Your task to perform on an android device: Open calendar and show me the first week of next month Image 0: 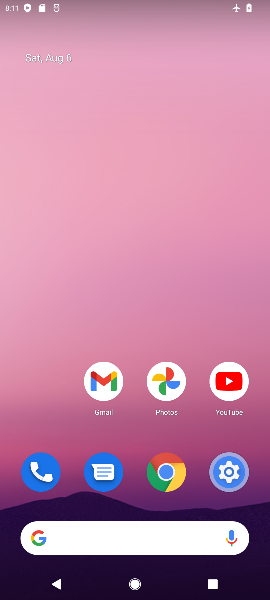
Step 0: drag from (257, 576) to (186, 197)
Your task to perform on an android device: Open calendar and show me the first week of next month Image 1: 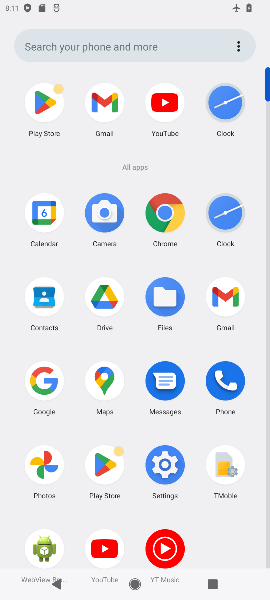
Step 1: click (42, 213)
Your task to perform on an android device: Open calendar and show me the first week of next month Image 2: 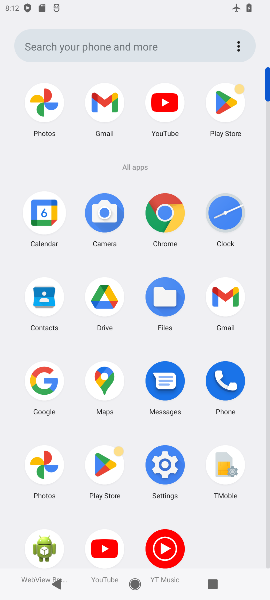
Step 2: click (50, 219)
Your task to perform on an android device: Open calendar and show me the first week of next month Image 3: 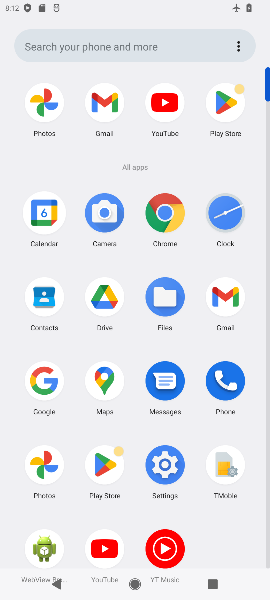
Step 3: click (43, 214)
Your task to perform on an android device: Open calendar and show me the first week of next month Image 4: 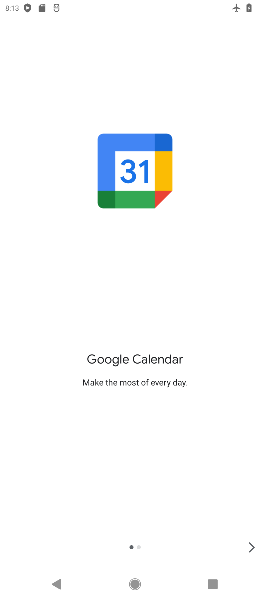
Step 4: click (252, 544)
Your task to perform on an android device: Open calendar and show me the first week of next month Image 5: 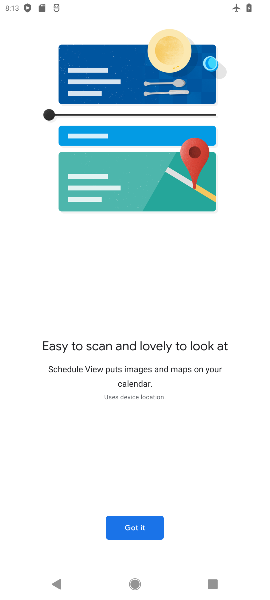
Step 5: click (135, 526)
Your task to perform on an android device: Open calendar and show me the first week of next month Image 6: 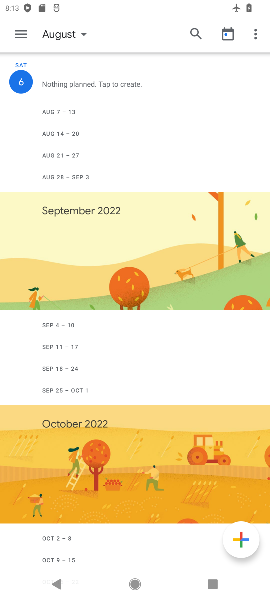
Step 6: click (84, 33)
Your task to perform on an android device: Open calendar and show me the first week of next month Image 7: 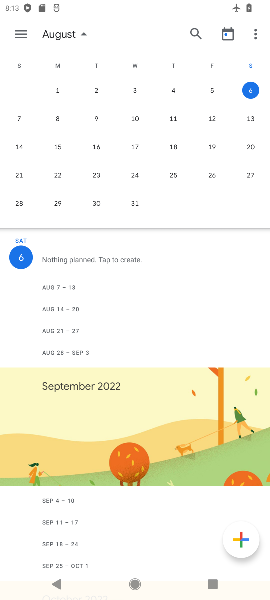
Step 7: drag from (256, 148) to (15, 154)
Your task to perform on an android device: Open calendar and show me the first week of next month Image 8: 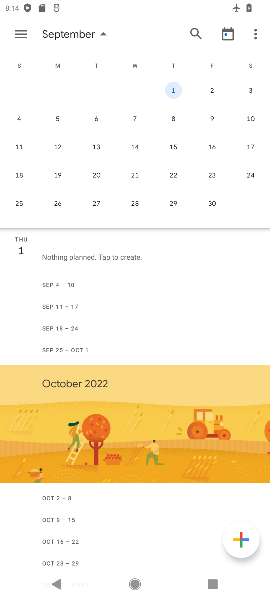
Step 8: click (19, 30)
Your task to perform on an android device: Open calendar and show me the first week of next month Image 9: 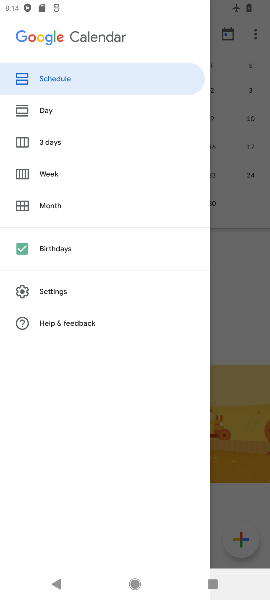
Step 9: click (47, 170)
Your task to perform on an android device: Open calendar and show me the first week of next month Image 10: 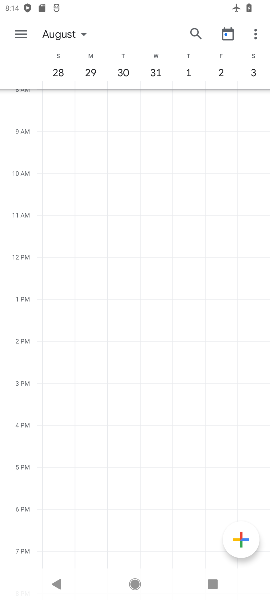
Step 10: task complete